Your task to perform on an android device: Is it going to rain tomorrow? Image 0: 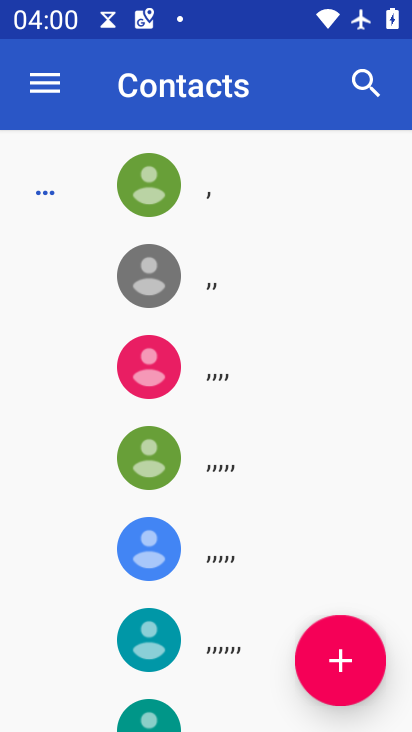
Step 0: press home button
Your task to perform on an android device: Is it going to rain tomorrow? Image 1: 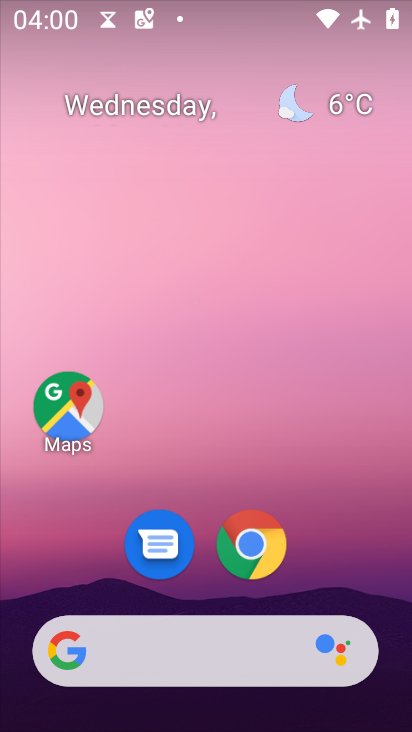
Step 1: drag from (318, 583) to (328, 143)
Your task to perform on an android device: Is it going to rain tomorrow? Image 2: 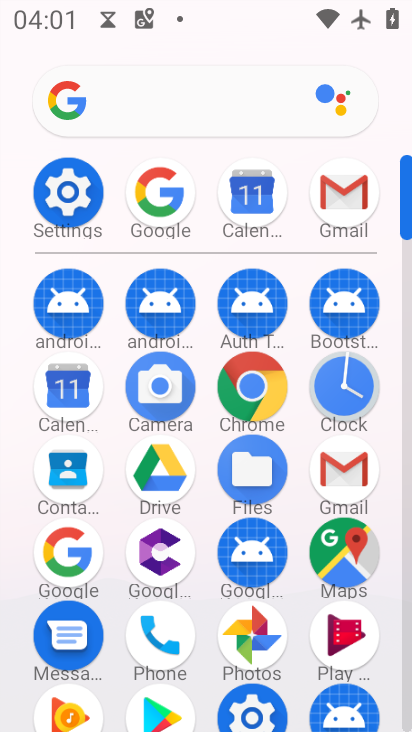
Step 2: click (173, 107)
Your task to perform on an android device: Is it going to rain tomorrow? Image 3: 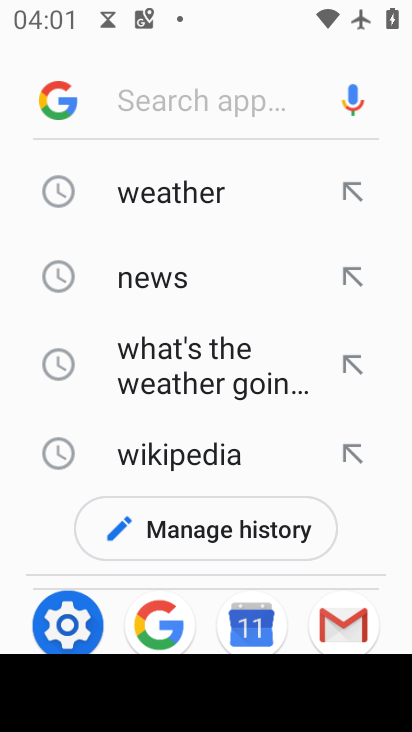
Step 3: type "is it going to rain tomorrow"
Your task to perform on an android device: Is it going to rain tomorrow? Image 4: 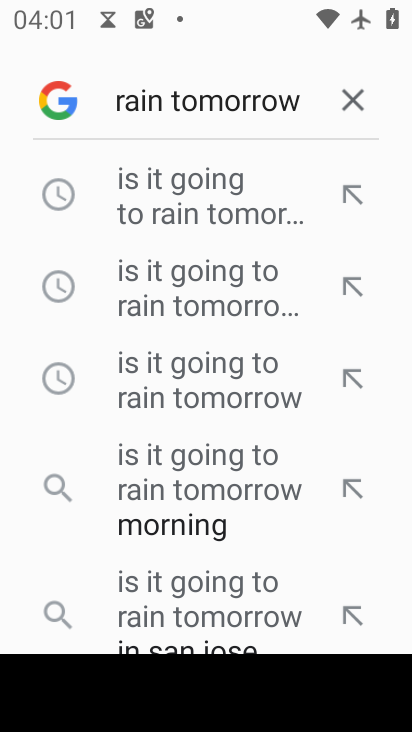
Step 4: click (170, 191)
Your task to perform on an android device: Is it going to rain tomorrow? Image 5: 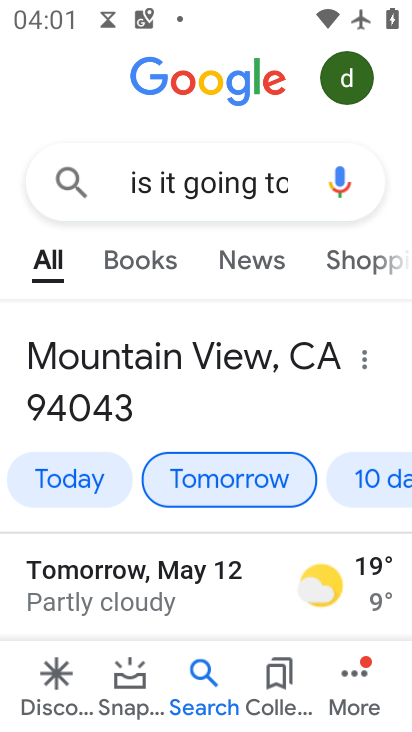
Step 5: task complete